Your task to perform on an android device: toggle pop-ups in chrome Image 0: 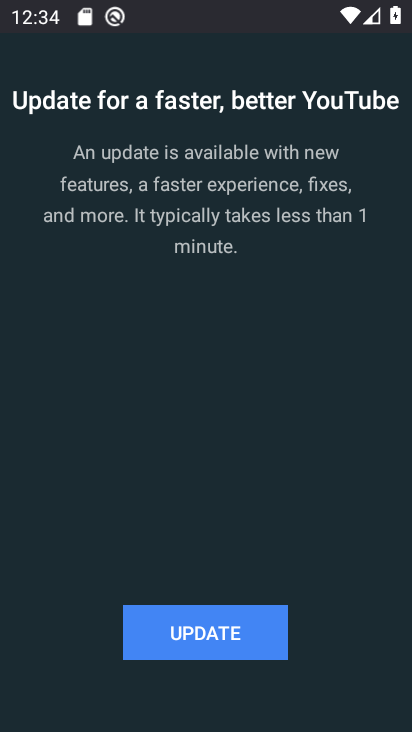
Step 0: press home button
Your task to perform on an android device: toggle pop-ups in chrome Image 1: 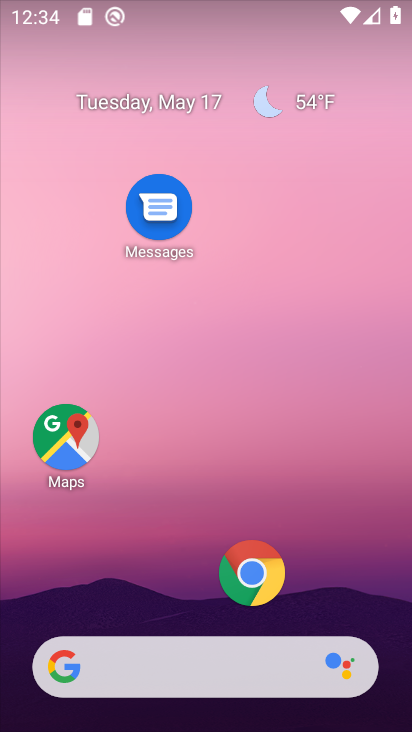
Step 1: click (251, 574)
Your task to perform on an android device: toggle pop-ups in chrome Image 2: 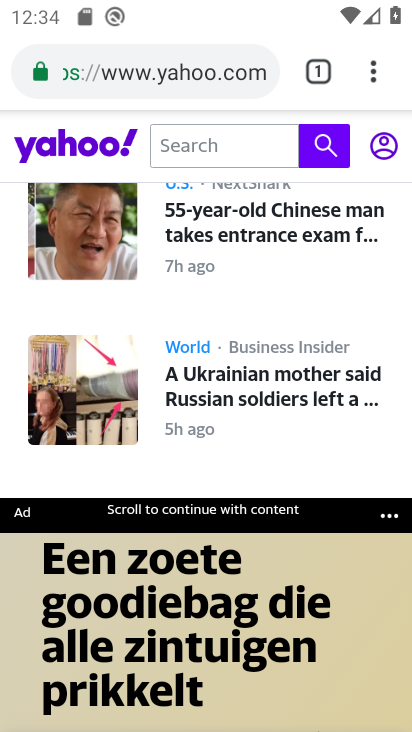
Step 2: click (376, 60)
Your task to perform on an android device: toggle pop-ups in chrome Image 3: 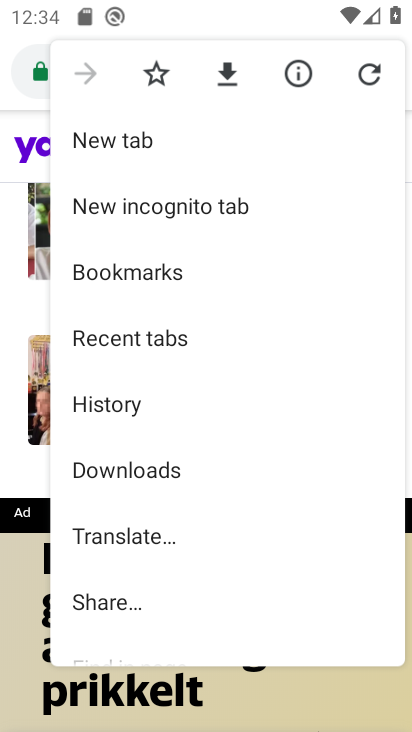
Step 3: drag from (206, 599) to (206, 161)
Your task to perform on an android device: toggle pop-ups in chrome Image 4: 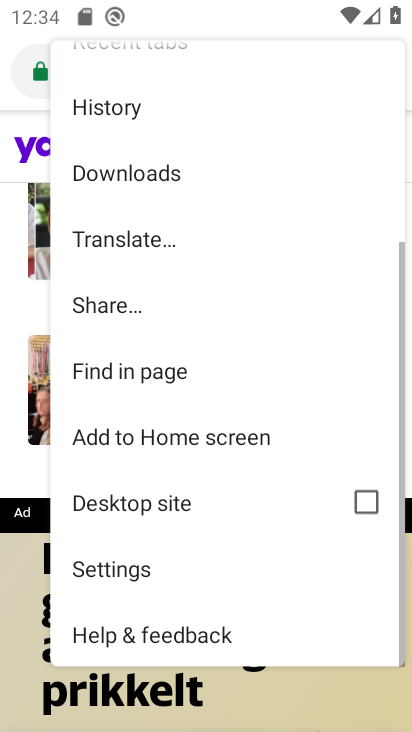
Step 4: click (161, 563)
Your task to perform on an android device: toggle pop-ups in chrome Image 5: 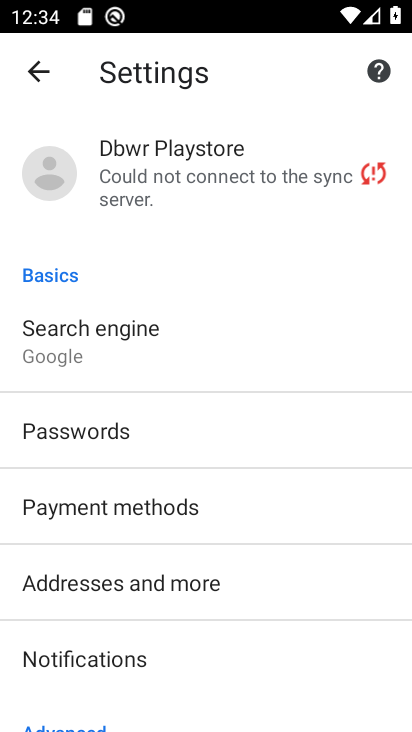
Step 5: drag from (219, 648) to (202, 174)
Your task to perform on an android device: toggle pop-ups in chrome Image 6: 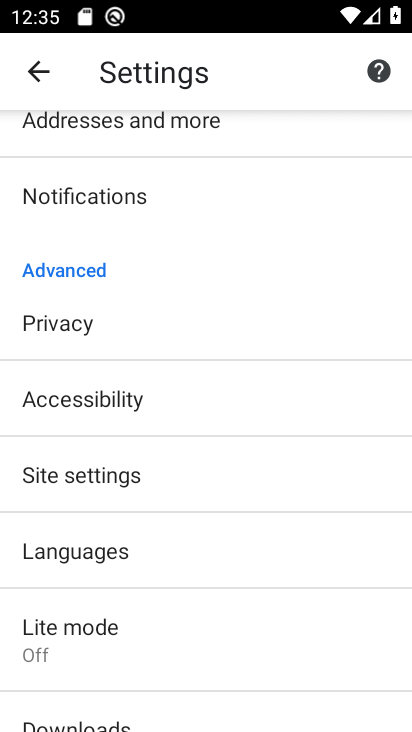
Step 6: click (187, 466)
Your task to perform on an android device: toggle pop-ups in chrome Image 7: 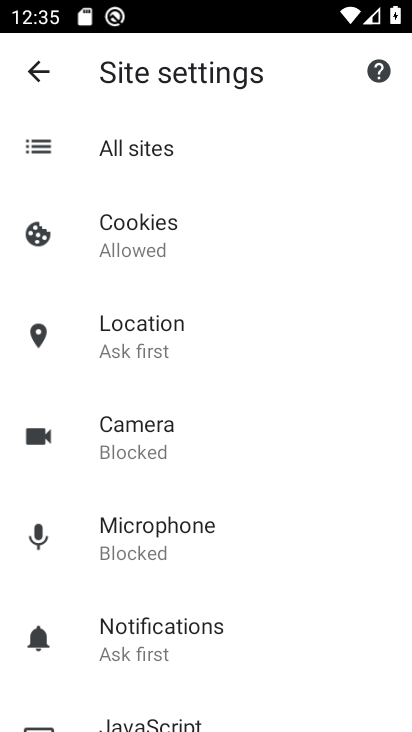
Step 7: drag from (191, 664) to (198, 223)
Your task to perform on an android device: toggle pop-ups in chrome Image 8: 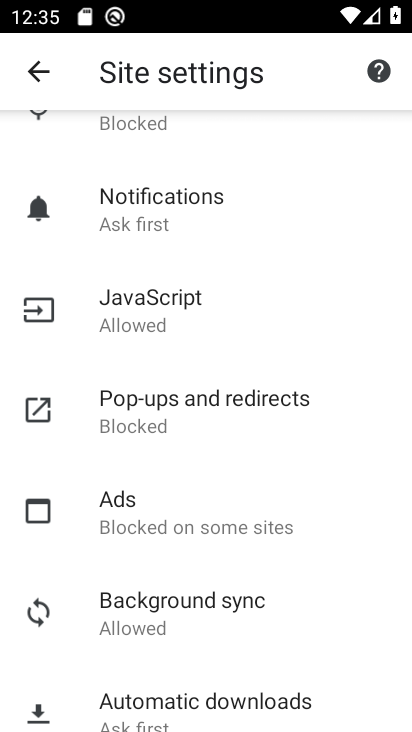
Step 8: click (184, 414)
Your task to perform on an android device: toggle pop-ups in chrome Image 9: 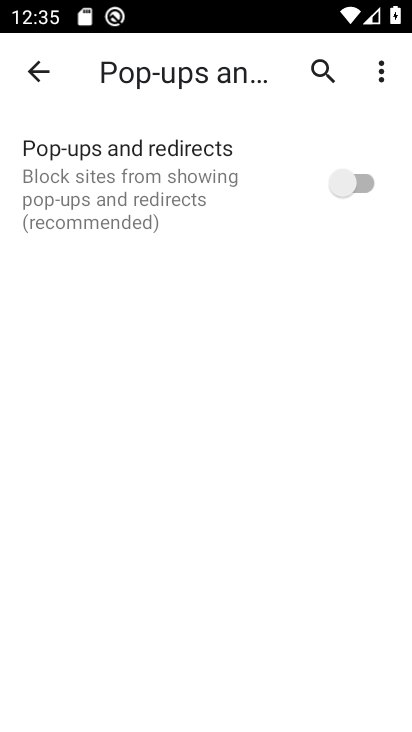
Step 9: click (370, 182)
Your task to perform on an android device: toggle pop-ups in chrome Image 10: 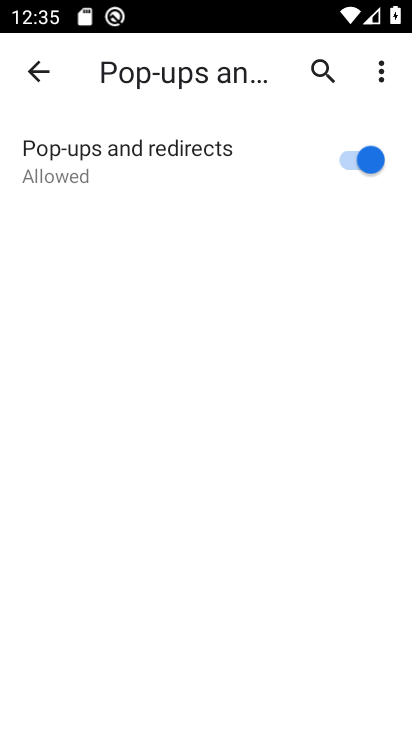
Step 10: task complete